Your task to perform on an android device: Open Maps and search for coffee Image 0: 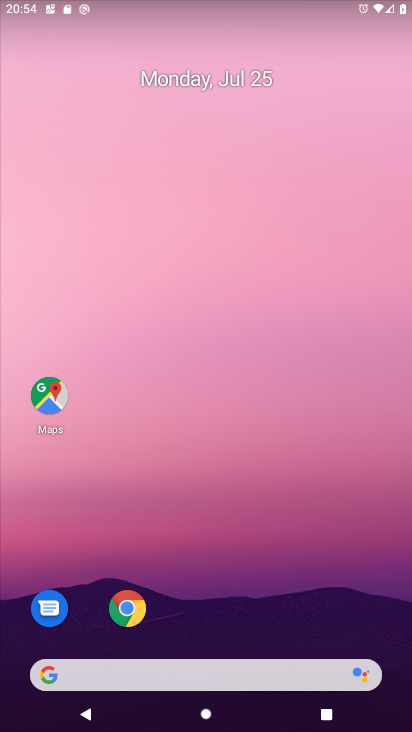
Step 0: click (50, 396)
Your task to perform on an android device: Open Maps and search for coffee Image 1: 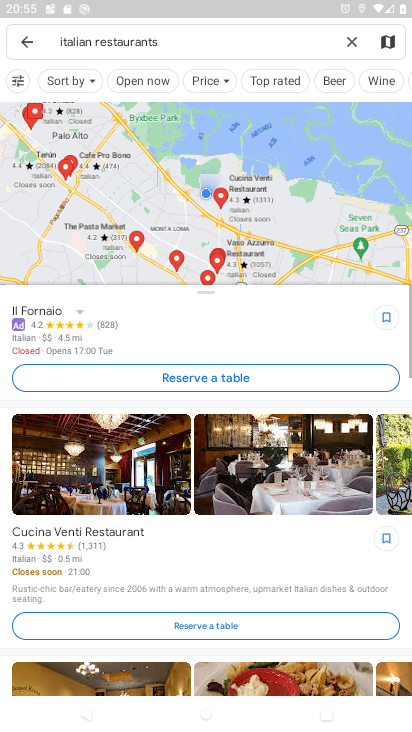
Step 1: click (266, 44)
Your task to perform on an android device: Open Maps and search for coffee Image 2: 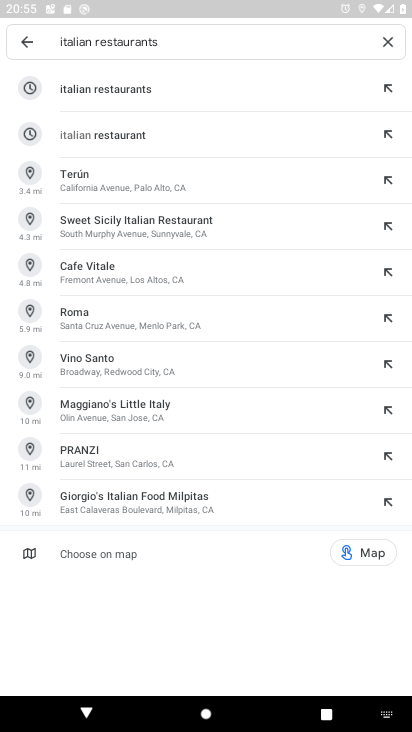
Step 2: click (392, 41)
Your task to perform on an android device: Open Maps and search for coffee Image 3: 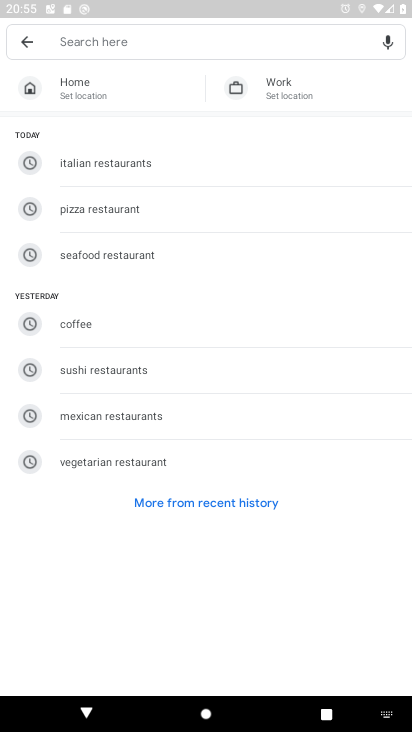
Step 3: type "coffee"
Your task to perform on an android device: Open Maps and search for coffee Image 4: 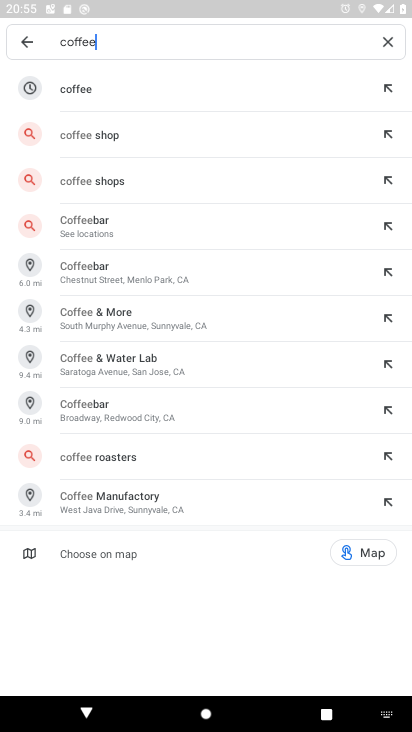
Step 4: click (174, 92)
Your task to perform on an android device: Open Maps and search for coffee Image 5: 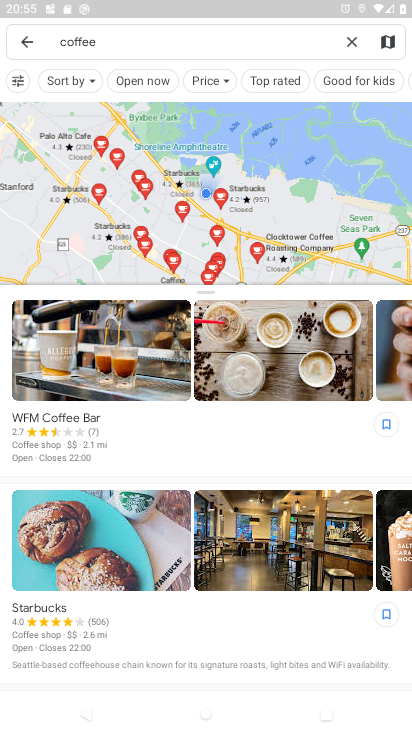
Step 5: task complete